Your task to perform on an android device: create a new album in the google photos Image 0: 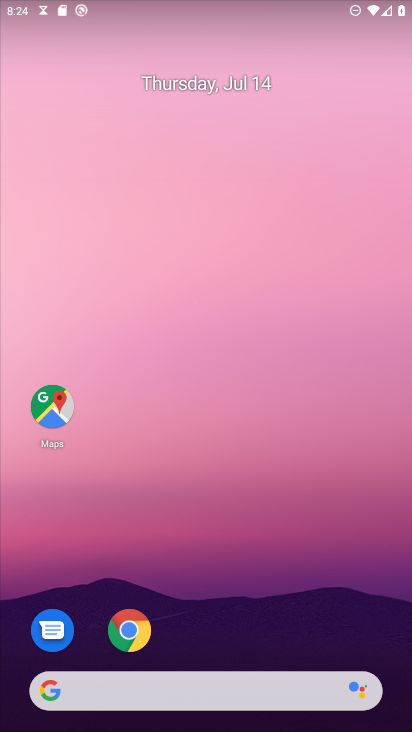
Step 0: drag from (286, 590) to (306, 109)
Your task to perform on an android device: create a new album in the google photos Image 1: 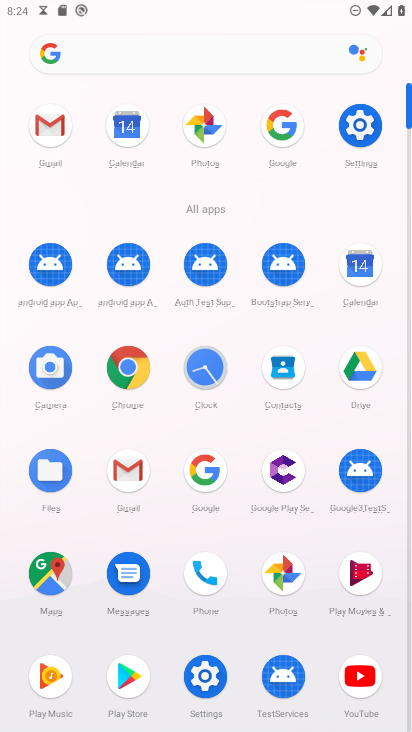
Step 1: click (199, 116)
Your task to perform on an android device: create a new album in the google photos Image 2: 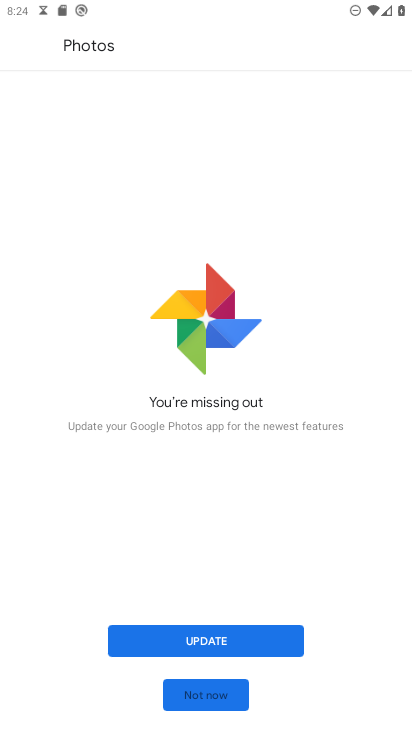
Step 2: click (226, 696)
Your task to perform on an android device: create a new album in the google photos Image 3: 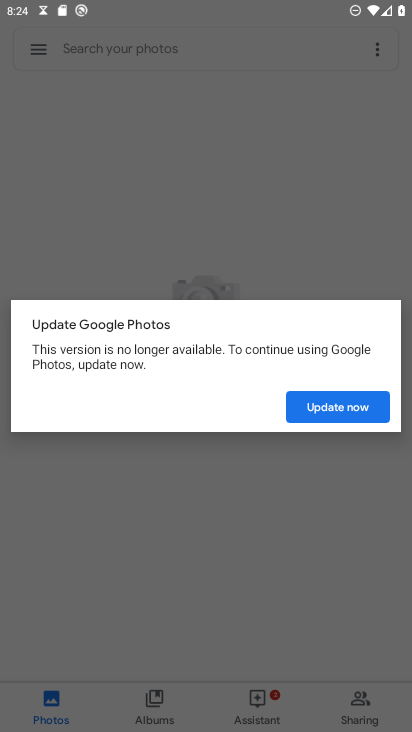
Step 3: click (340, 387)
Your task to perform on an android device: create a new album in the google photos Image 4: 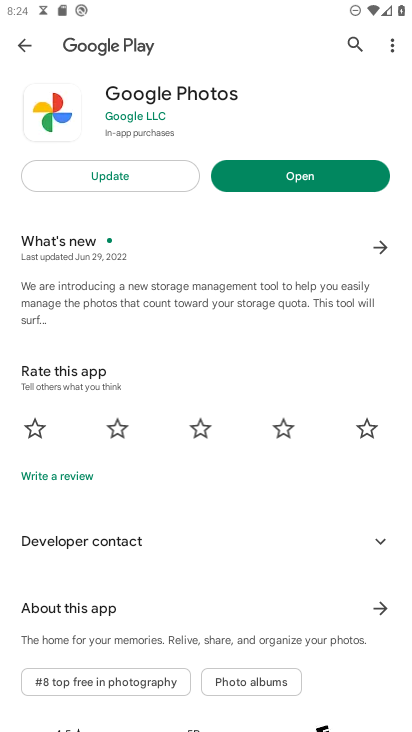
Step 4: click (148, 178)
Your task to perform on an android device: create a new album in the google photos Image 5: 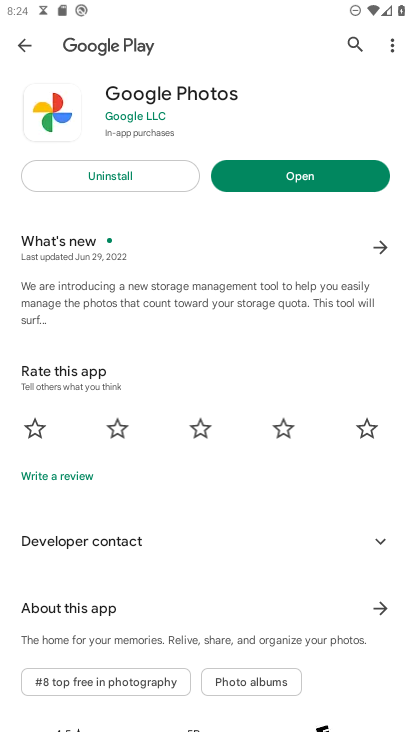
Step 5: click (345, 169)
Your task to perform on an android device: create a new album in the google photos Image 6: 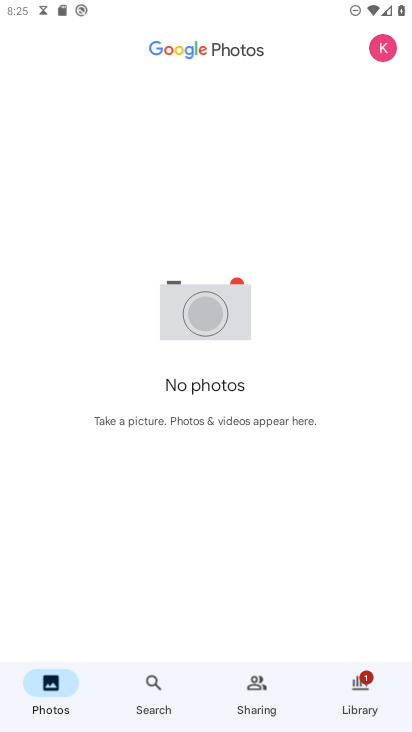
Step 6: click (379, 686)
Your task to perform on an android device: create a new album in the google photos Image 7: 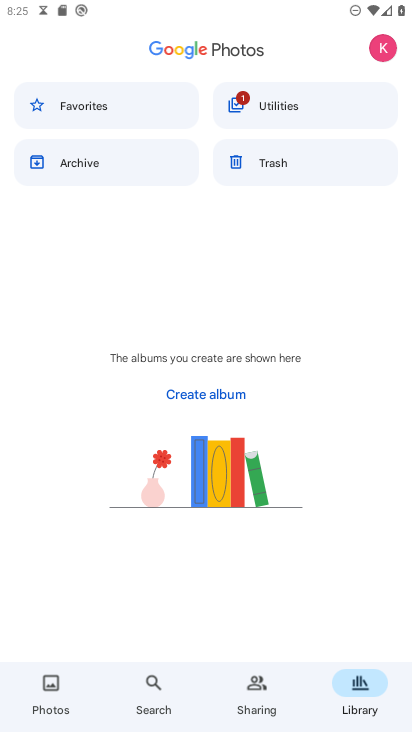
Step 7: click (196, 398)
Your task to perform on an android device: create a new album in the google photos Image 8: 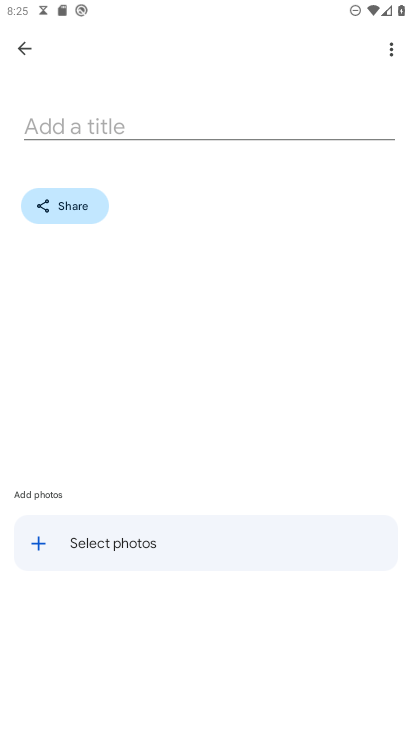
Step 8: click (84, 118)
Your task to perform on an android device: create a new album in the google photos Image 9: 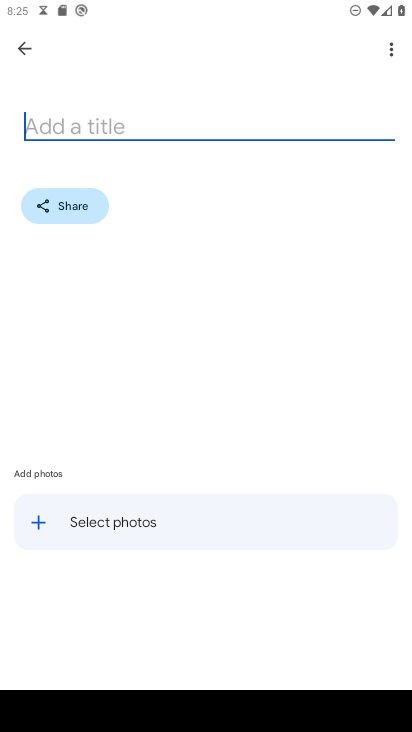
Step 9: type "cr"
Your task to perform on an android device: create a new album in the google photos Image 10: 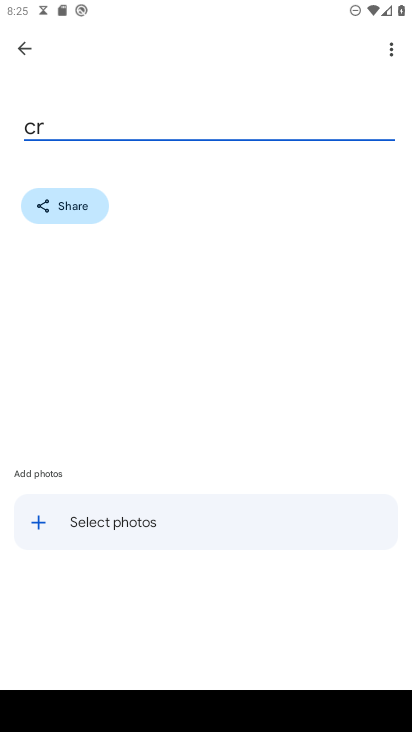
Step 10: click (394, 51)
Your task to perform on an android device: create a new album in the google photos Image 11: 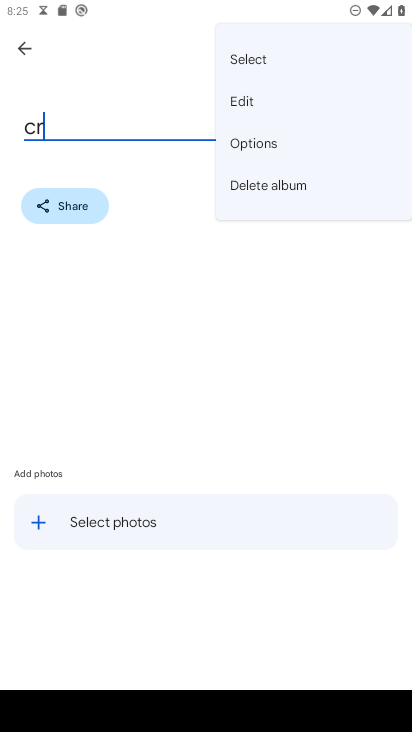
Step 11: click (120, 516)
Your task to perform on an android device: create a new album in the google photos Image 12: 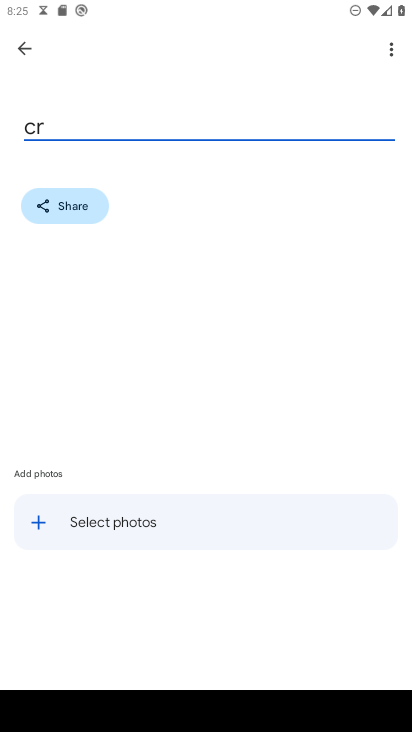
Step 12: click (120, 516)
Your task to perform on an android device: create a new album in the google photos Image 13: 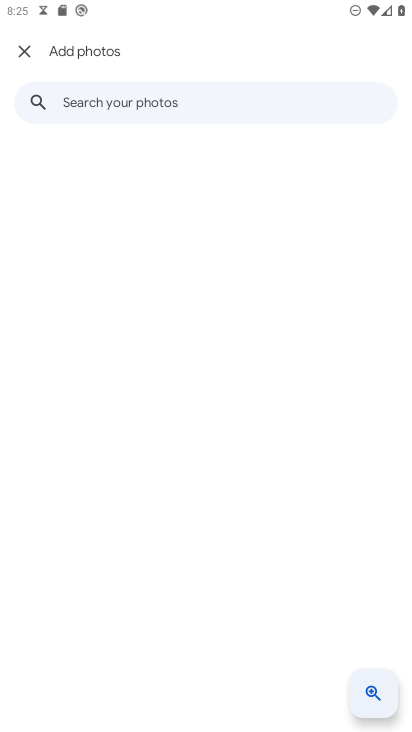
Step 13: task complete